Your task to perform on an android device: Search for sushi restaurants on Maps Image 0: 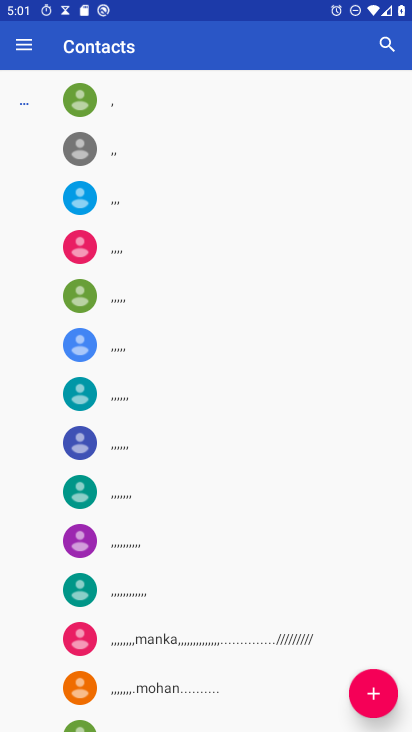
Step 0: press home button
Your task to perform on an android device: Search for sushi restaurants on Maps Image 1: 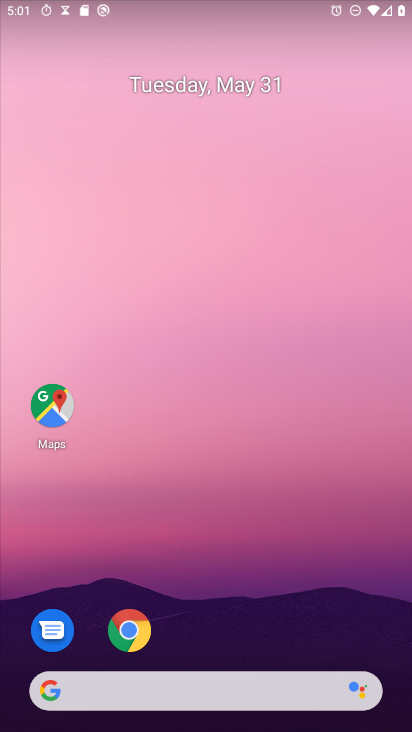
Step 1: drag from (29, 270) to (392, 253)
Your task to perform on an android device: Search for sushi restaurants on Maps Image 2: 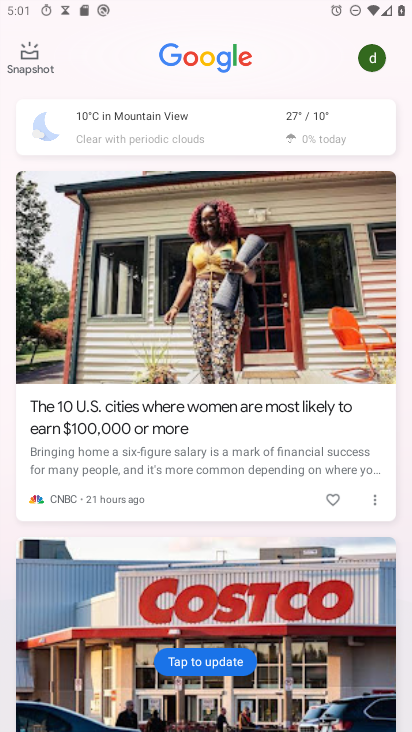
Step 2: click (208, 127)
Your task to perform on an android device: Search for sushi restaurants on Maps Image 3: 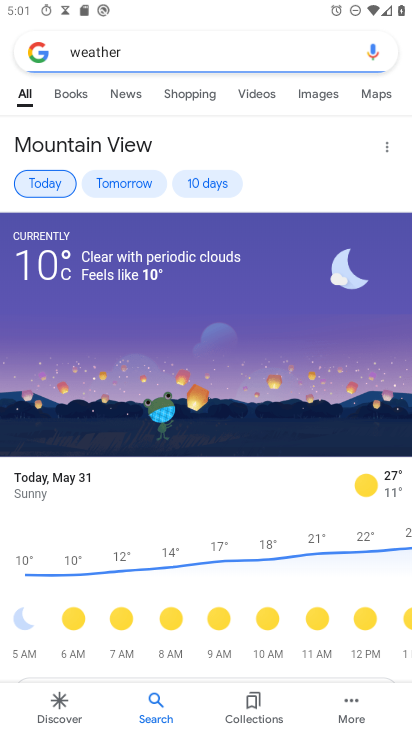
Step 3: press home button
Your task to perform on an android device: Search for sushi restaurants on Maps Image 4: 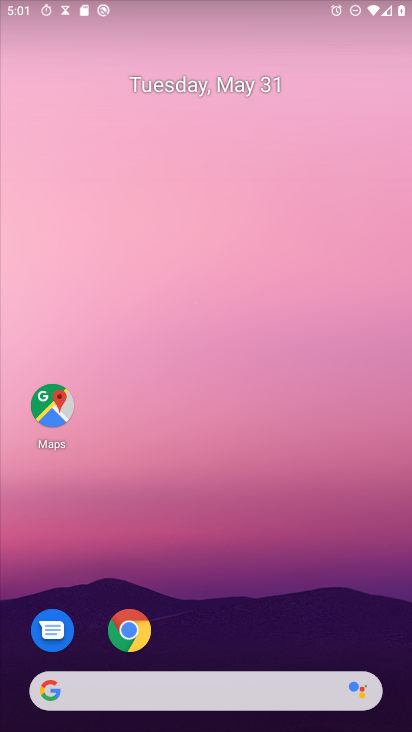
Step 4: drag from (283, 664) to (217, 45)
Your task to perform on an android device: Search for sushi restaurants on Maps Image 5: 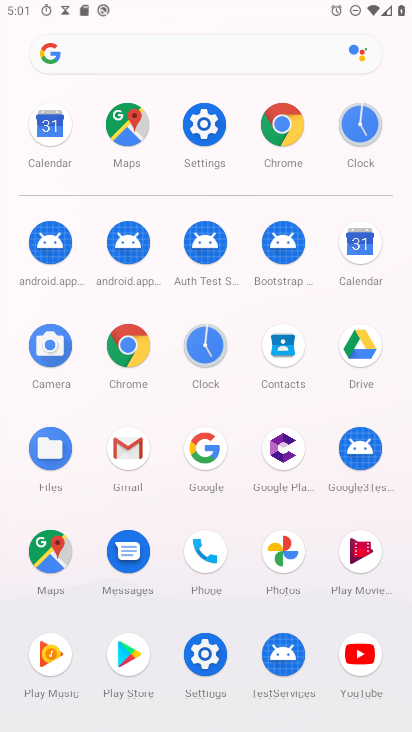
Step 5: click (50, 542)
Your task to perform on an android device: Search for sushi restaurants on Maps Image 6: 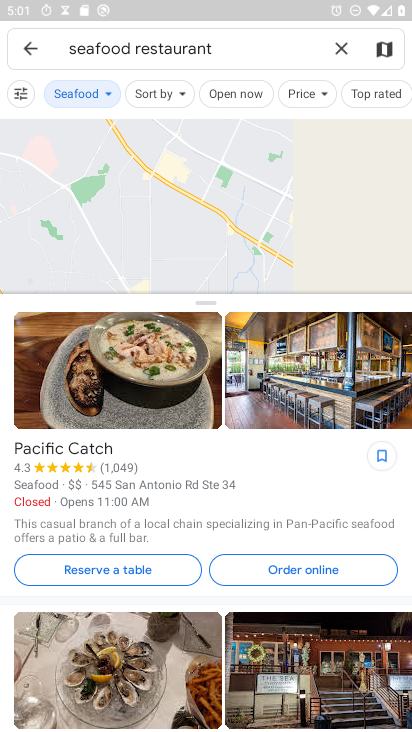
Step 6: click (350, 45)
Your task to perform on an android device: Search for sushi restaurants on Maps Image 7: 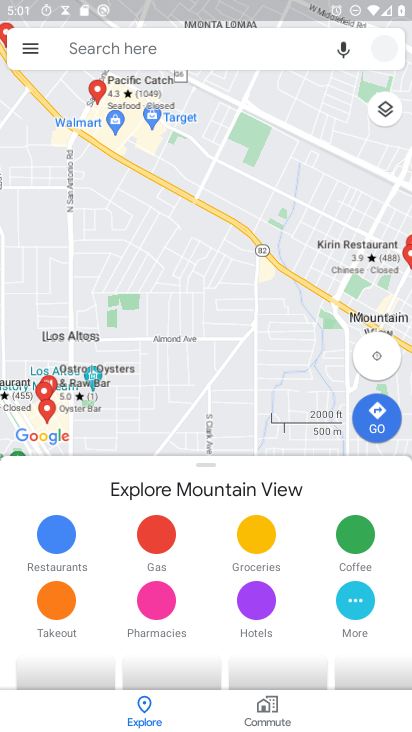
Step 7: click (254, 51)
Your task to perform on an android device: Search for sushi restaurants on Maps Image 8: 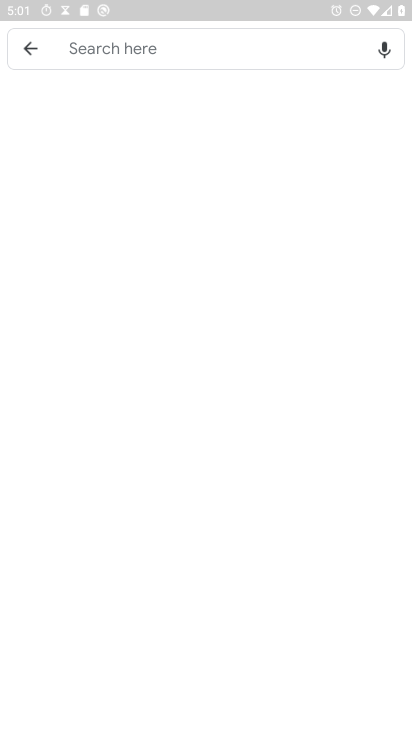
Step 8: click (214, 47)
Your task to perform on an android device: Search for sushi restaurants on Maps Image 9: 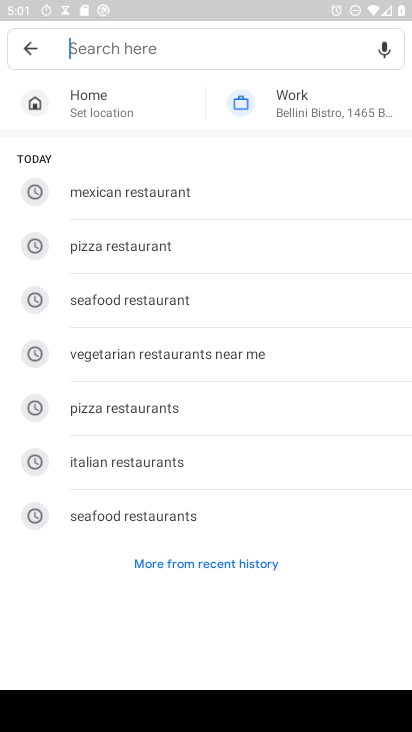
Step 9: type "sushi restaurant"
Your task to perform on an android device: Search for sushi restaurants on Maps Image 10: 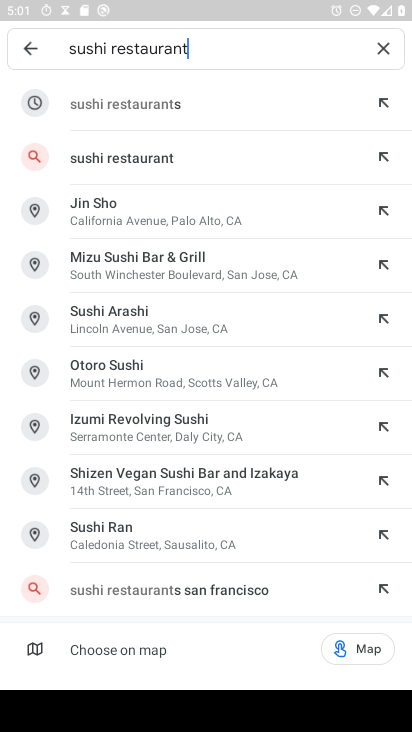
Step 10: click (235, 151)
Your task to perform on an android device: Search for sushi restaurants on Maps Image 11: 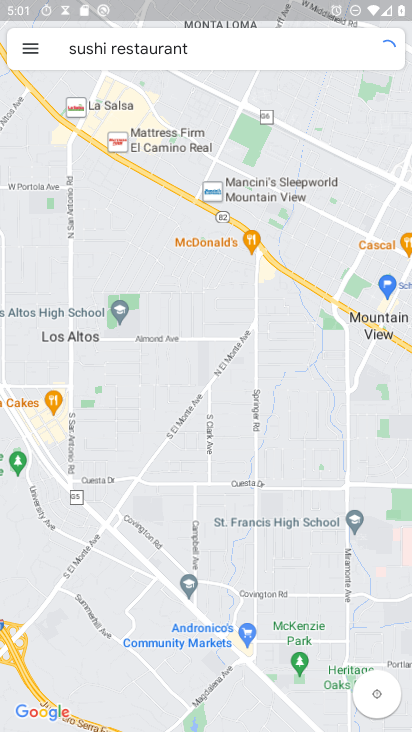
Step 11: task complete